Your task to perform on an android device: see sites visited before in the chrome app Image 0: 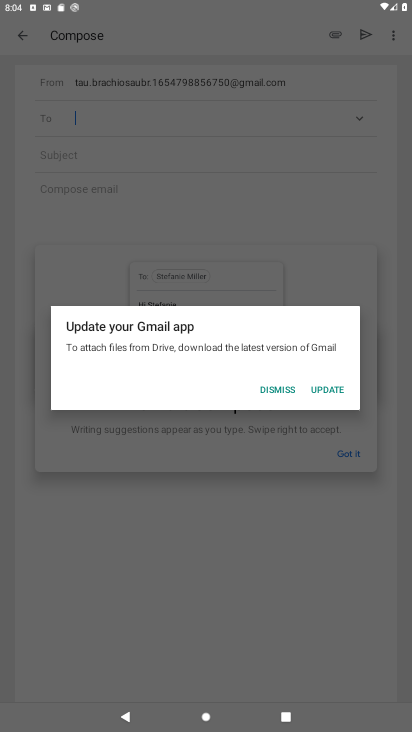
Step 0: click (279, 390)
Your task to perform on an android device: see sites visited before in the chrome app Image 1: 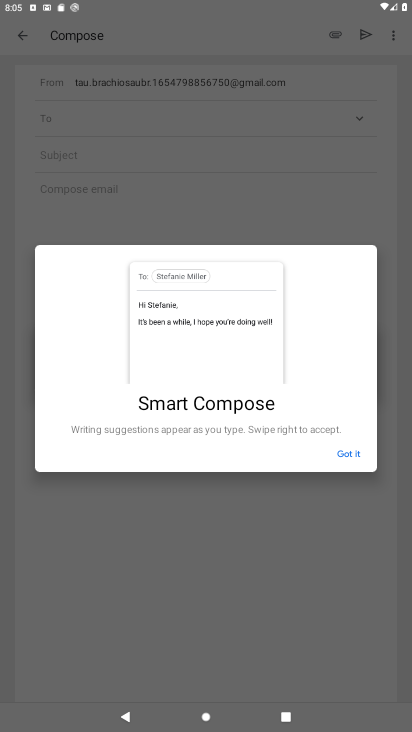
Step 1: click (355, 454)
Your task to perform on an android device: see sites visited before in the chrome app Image 2: 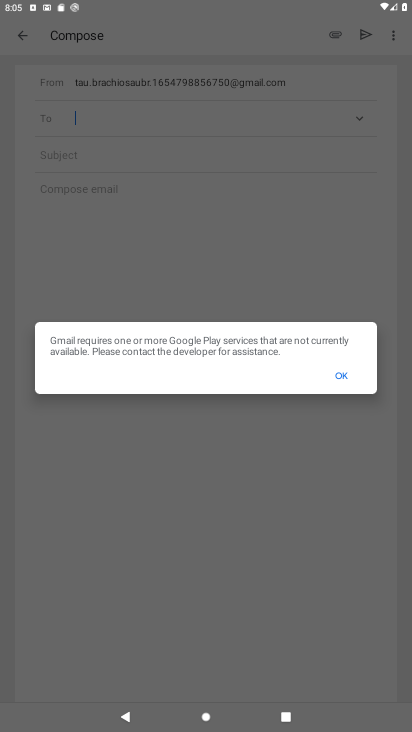
Step 2: click (345, 373)
Your task to perform on an android device: see sites visited before in the chrome app Image 3: 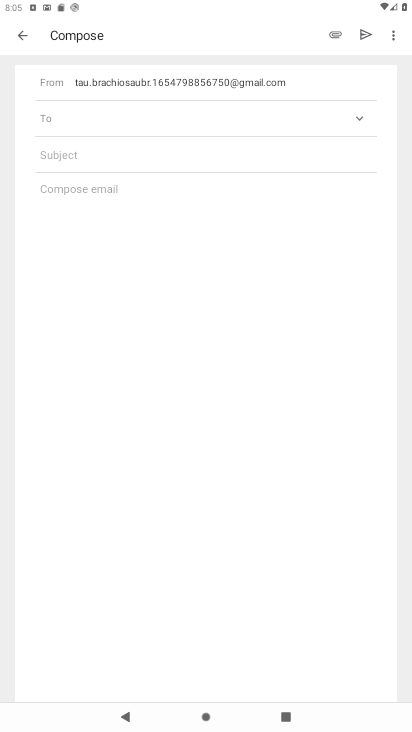
Step 3: press home button
Your task to perform on an android device: see sites visited before in the chrome app Image 4: 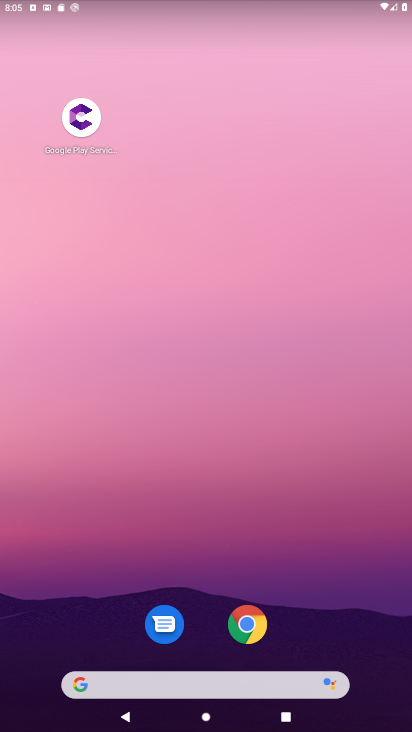
Step 4: click (247, 634)
Your task to perform on an android device: see sites visited before in the chrome app Image 5: 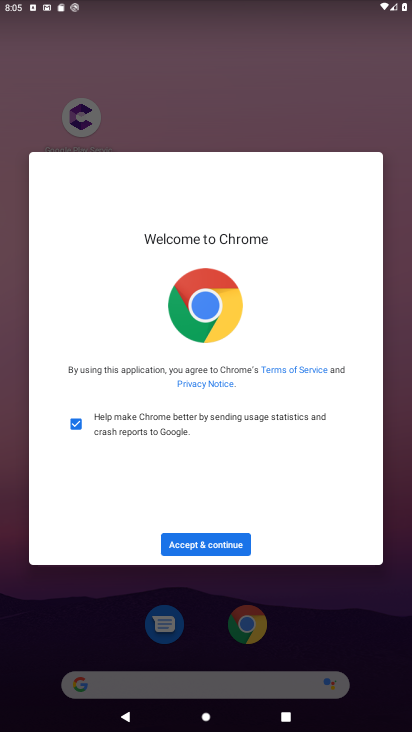
Step 5: click (215, 549)
Your task to perform on an android device: see sites visited before in the chrome app Image 6: 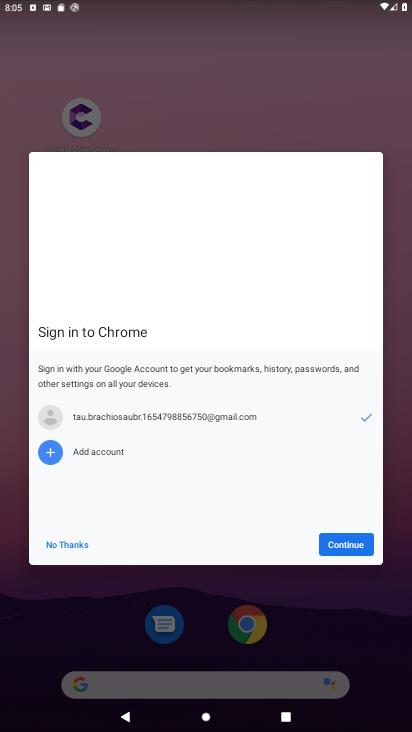
Step 6: click (68, 543)
Your task to perform on an android device: see sites visited before in the chrome app Image 7: 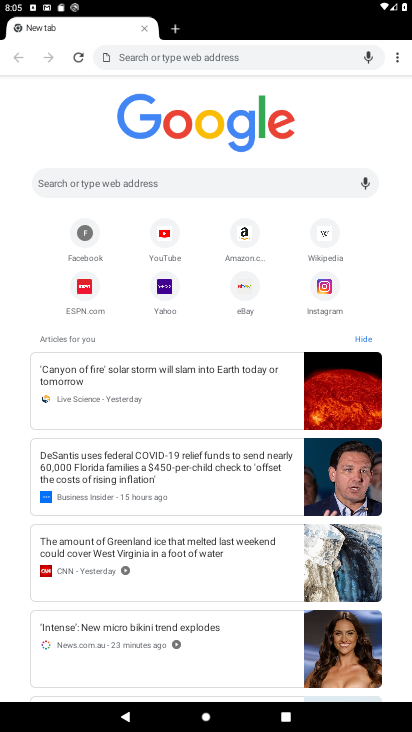
Step 7: task complete